Your task to perform on an android device: Go to location settings Image 0: 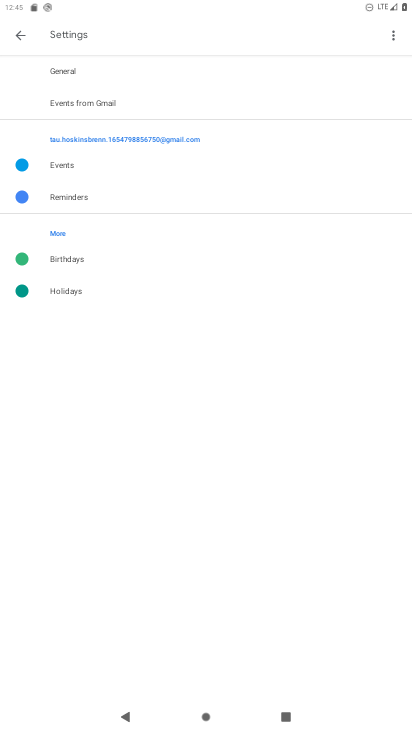
Step 0: press home button
Your task to perform on an android device: Go to location settings Image 1: 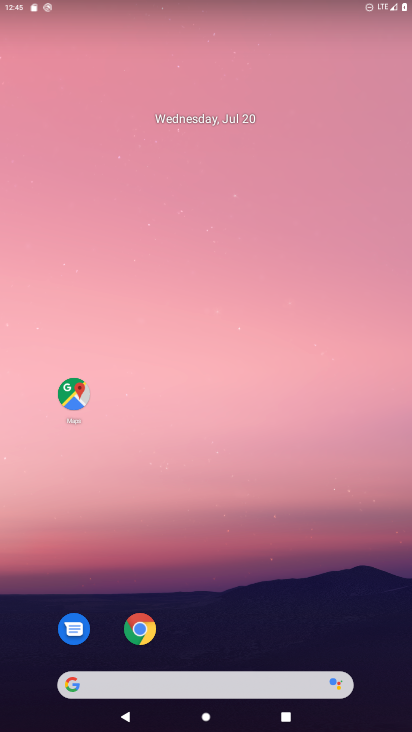
Step 1: drag from (251, 632) to (206, 129)
Your task to perform on an android device: Go to location settings Image 2: 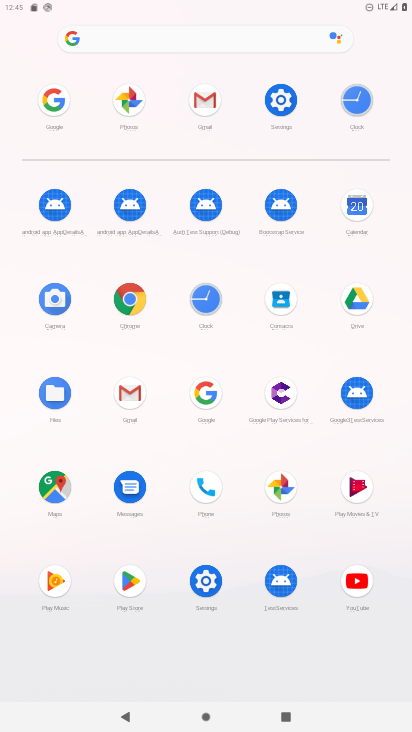
Step 2: click (201, 581)
Your task to perform on an android device: Go to location settings Image 3: 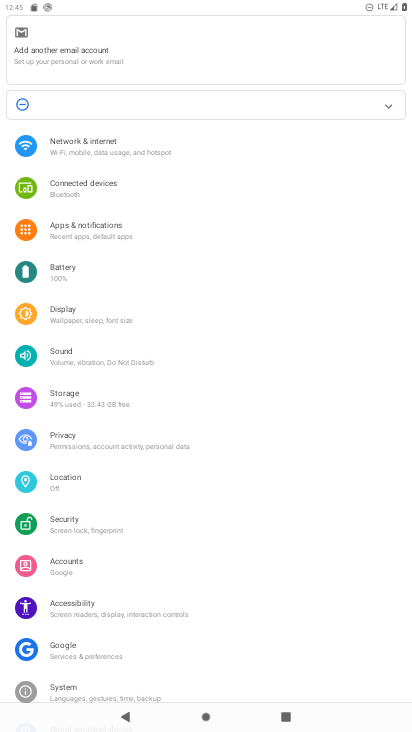
Step 3: click (65, 491)
Your task to perform on an android device: Go to location settings Image 4: 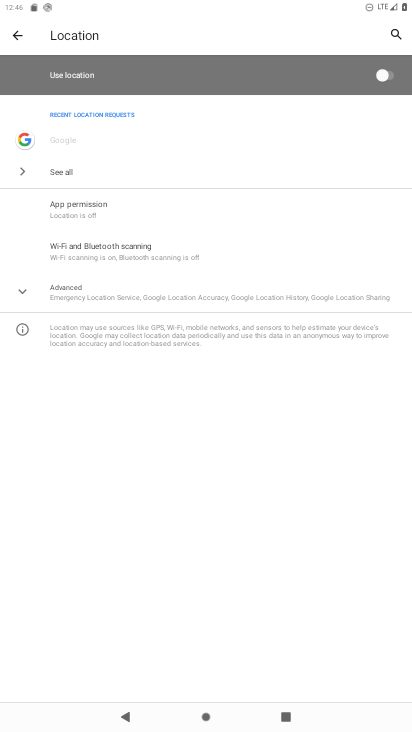
Step 4: task complete